Your task to perform on an android device: turn on airplane mode Image 0: 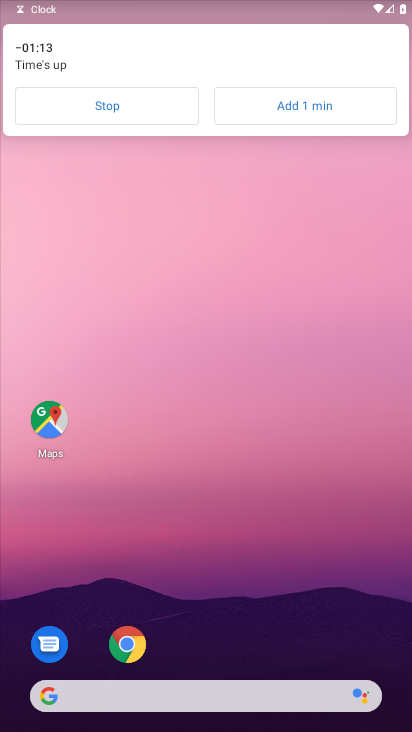
Step 0: click (107, 103)
Your task to perform on an android device: turn on airplane mode Image 1: 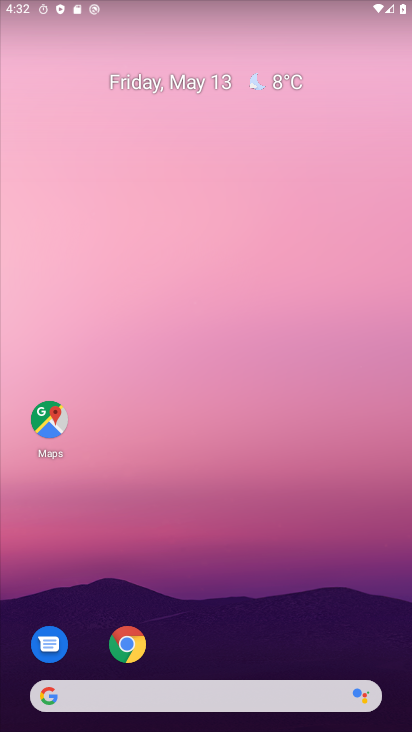
Step 1: drag from (296, 625) to (261, 221)
Your task to perform on an android device: turn on airplane mode Image 2: 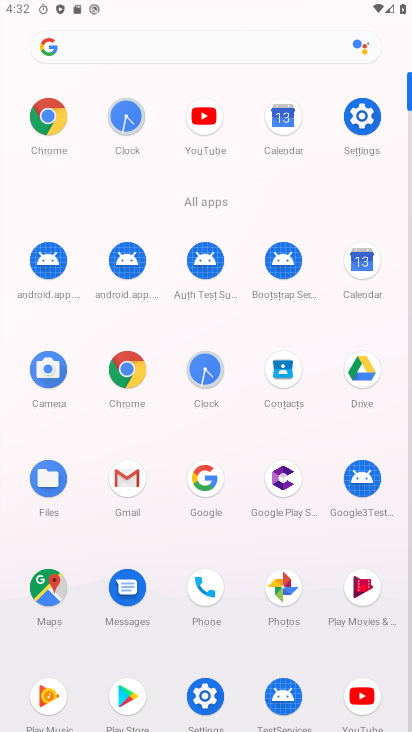
Step 2: click (354, 120)
Your task to perform on an android device: turn on airplane mode Image 3: 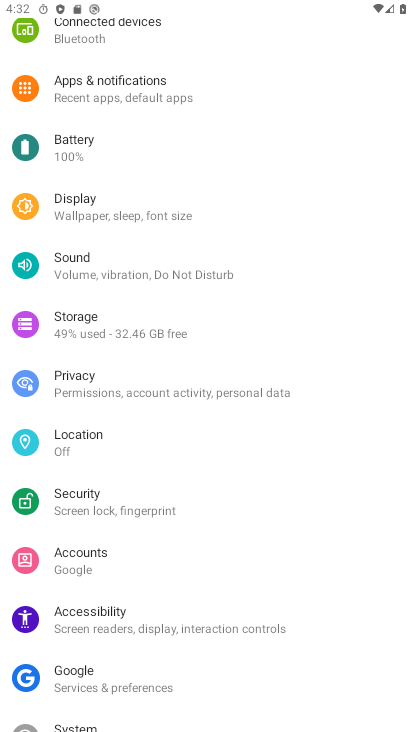
Step 3: drag from (262, 137) to (201, 588)
Your task to perform on an android device: turn on airplane mode Image 4: 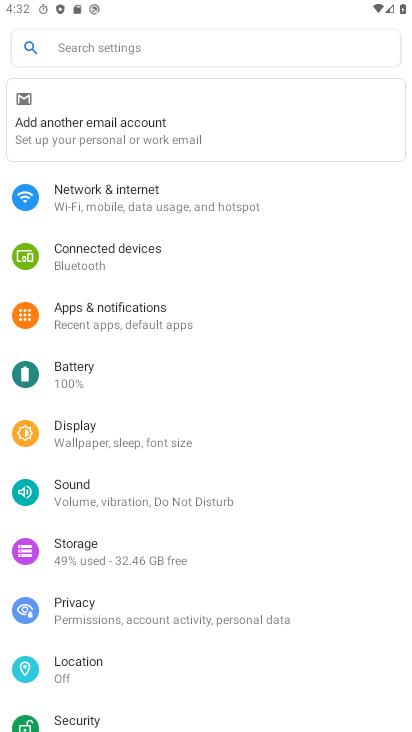
Step 4: click (177, 184)
Your task to perform on an android device: turn on airplane mode Image 5: 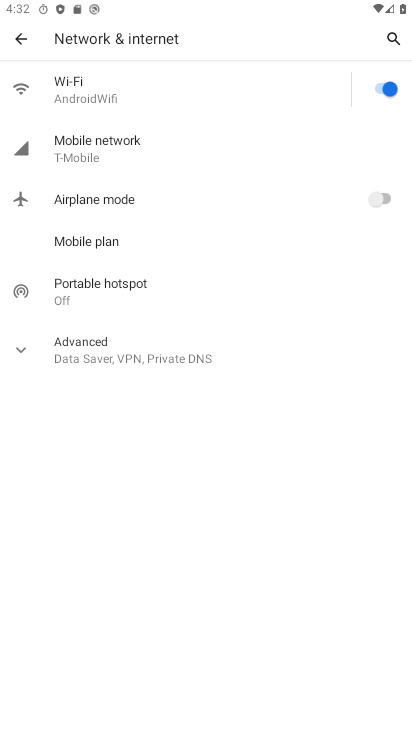
Step 5: click (377, 202)
Your task to perform on an android device: turn on airplane mode Image 6: 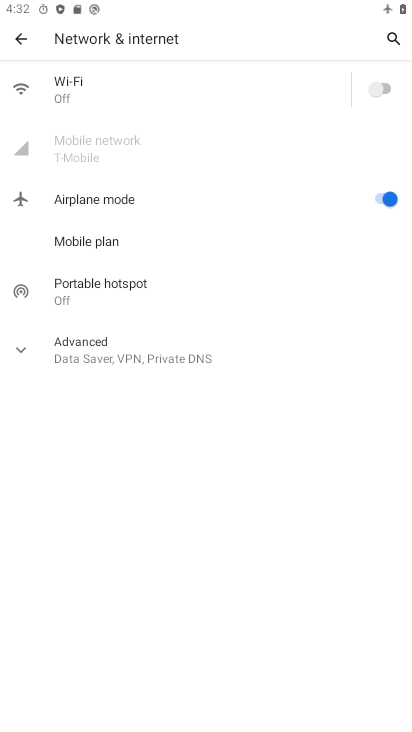
Step 6: task complete